Your task to perform on an android device: Open Android settings Image 0: 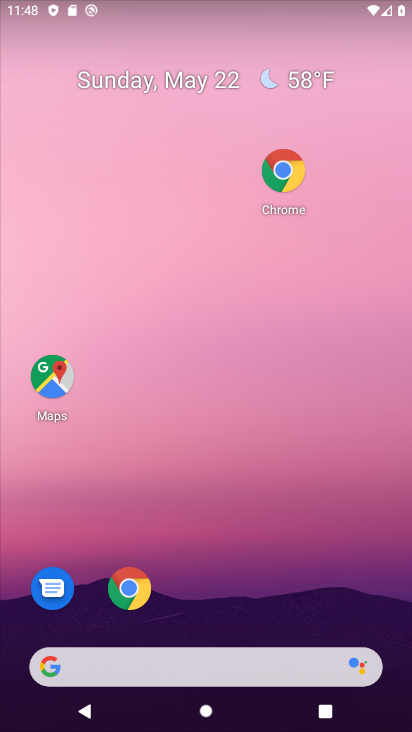
Step 0: press back button
Your task to perform on an android device: Open Android settings Image 1: 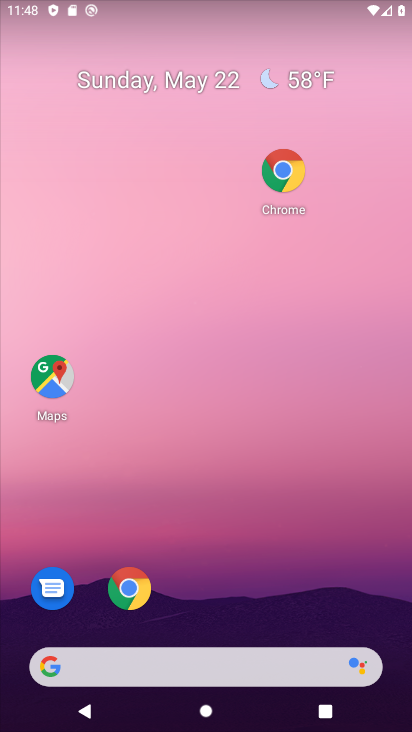
Step 1: press back button
Your task to perform on an android device: Open Android settings Image 2: 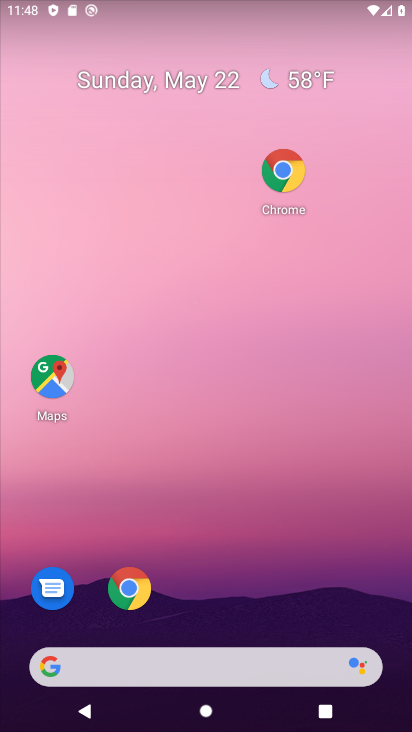
Step 2: press back button
Your task to perform on an android device: Open Android settings Image 3: 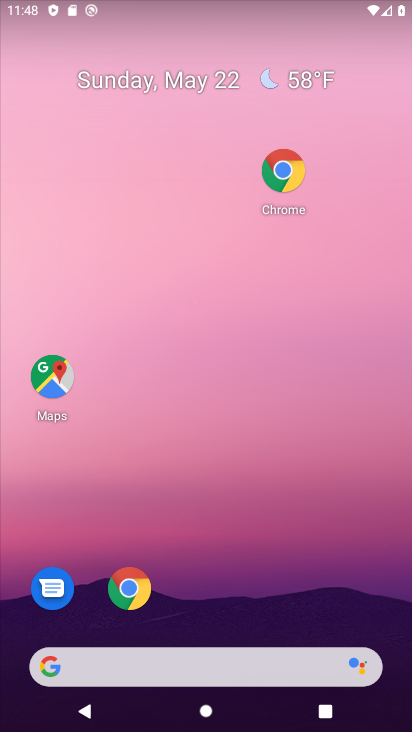
Step 3: press back button
Your task to perform on an android device: Open Android settings Image 4: 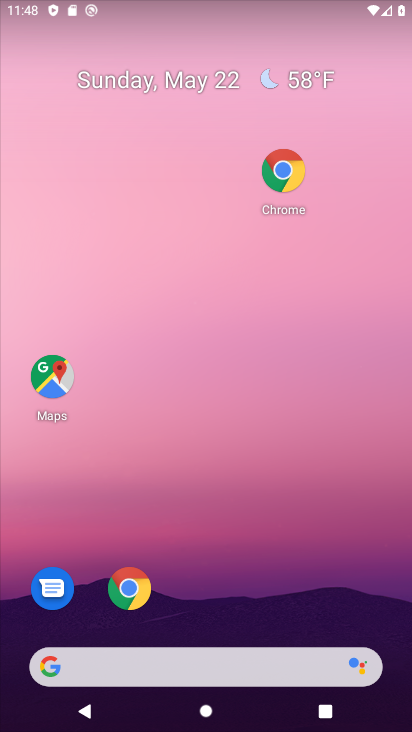
Step 4: drag from (250, 644) to (149, 98)
Your task to perform on an android device: Open Android settings Image 5: 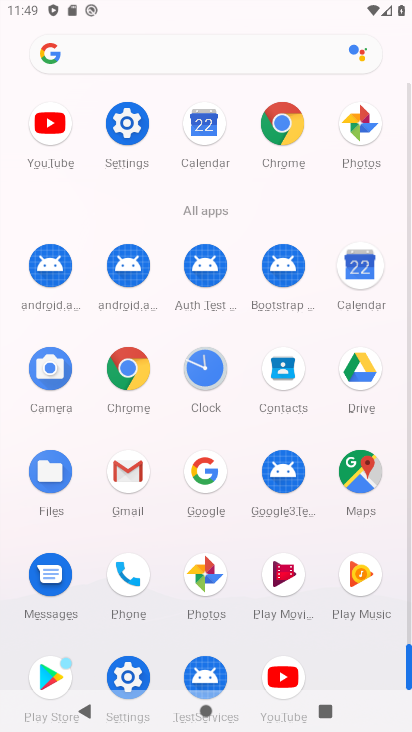
Step 5: click (118, 126)
Your task to perform on an android device: Open Android settings Image 6: 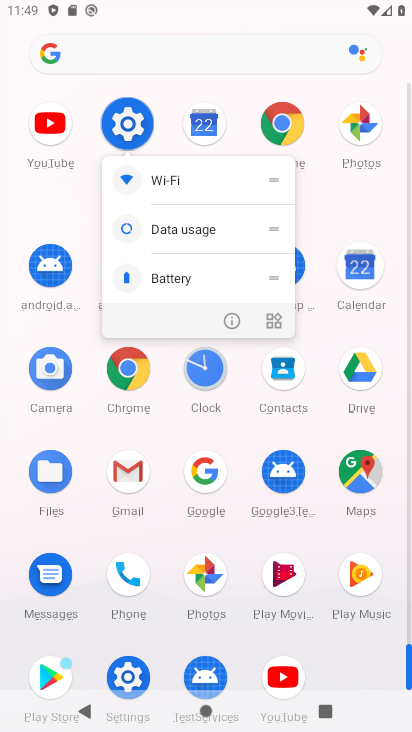
Step 6: click (126, 121)
Your task to perform on an android device: Open Android settings Image 7: 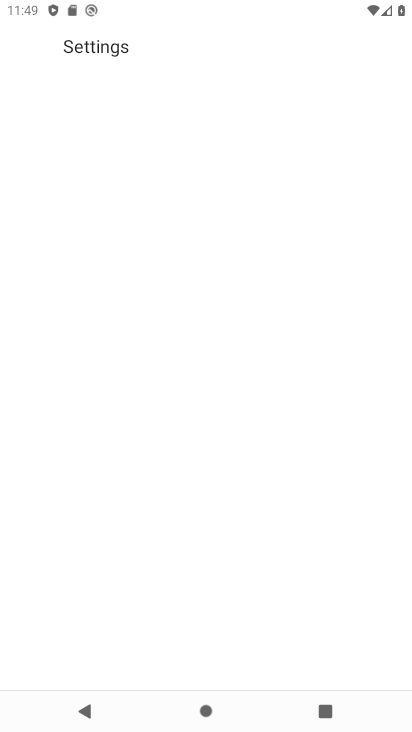
Step 7: click (126, 121)
Your task to perform on an android device: Open Android settings Image 8: 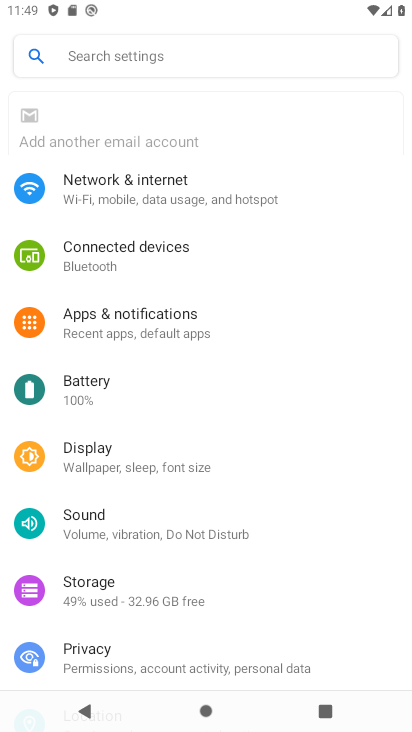
Step 8: click (126, 121)
Your task to perform on an android device: Open Android settings Image 9: 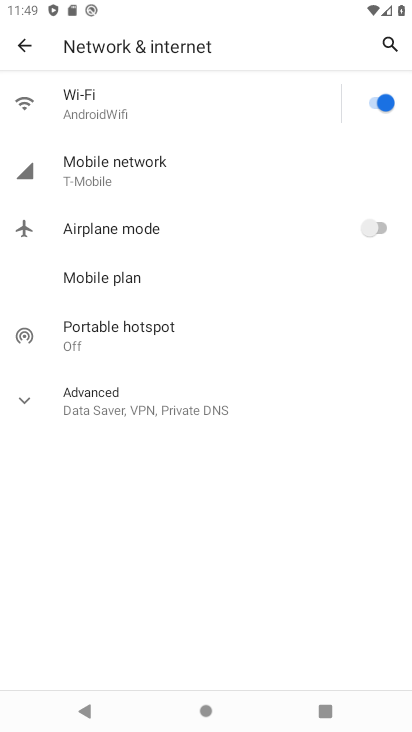
Step 9: click (17, 46)
Your task to perform on an android device: Open Android settings Image 10: 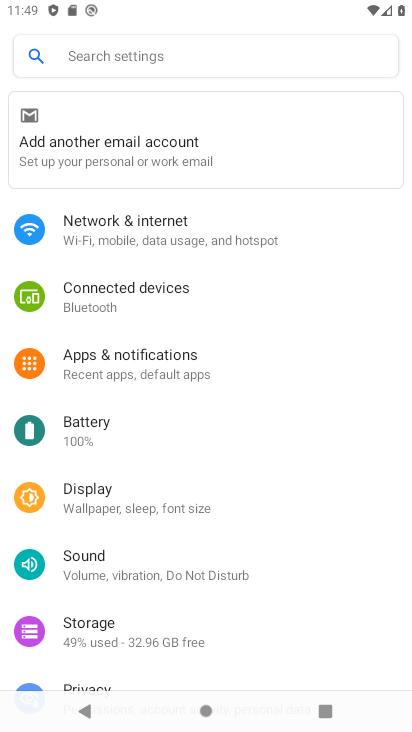
Step 10: drag from (180, 599) to (185, 119)
Your task to perform on an android device: Open Android settings Image 11: 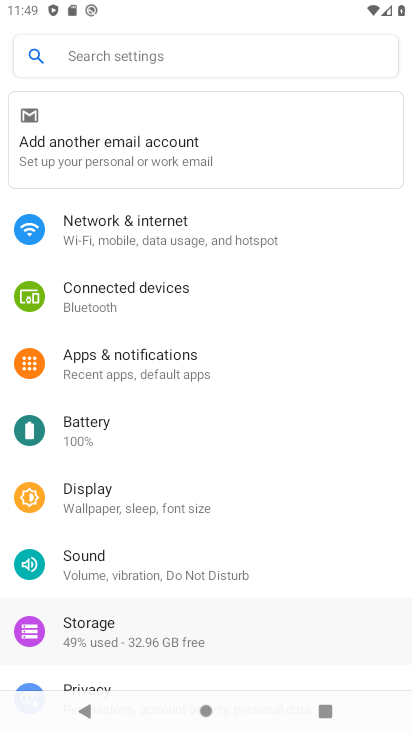
Step 11: drag from (143, 483) to (207, 125)
Your task to perform on an android device: Open Android settings Image 12: 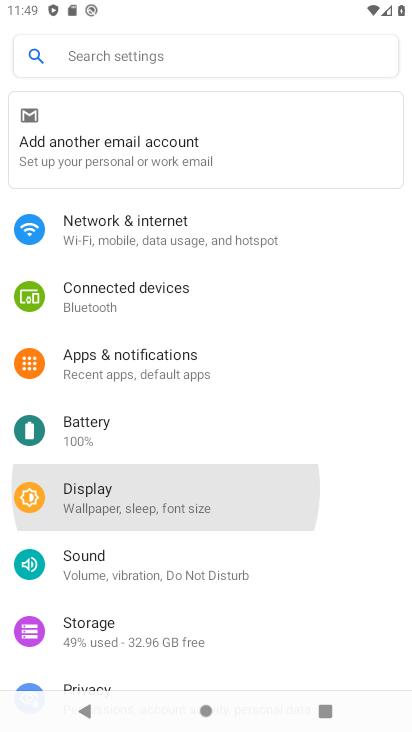
Step 12: drag from (127, 492) to (124, 96)
Your task to perform on an android device: Open Android settings Image 13: 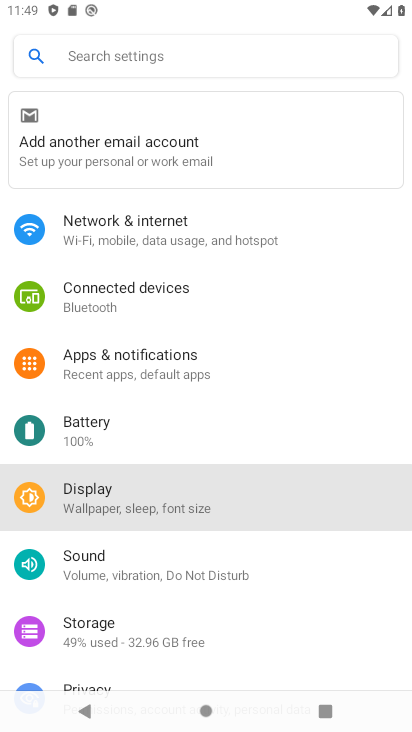
Step 13: drag from (123, 500) to (115, 120)
Your task to perform on an android device: Open Android settings Image 14: 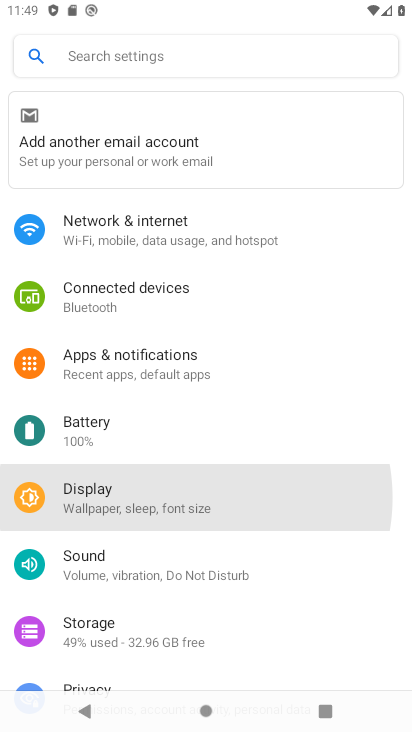
Step 14: click (218, 201)
Your task to perform on an android device: Open Android settings Image 15: 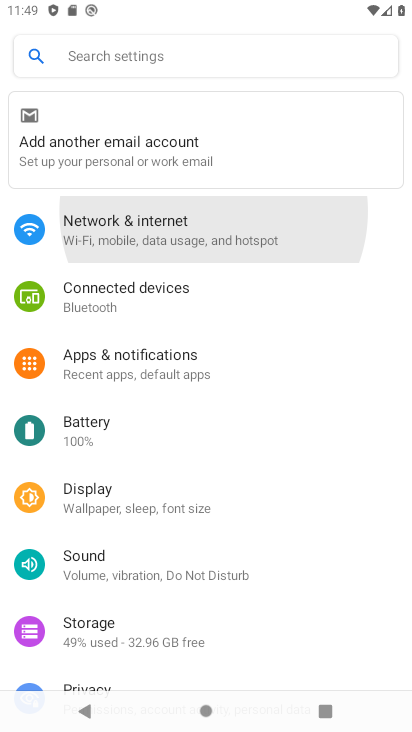
Step 15: drag from (122, 503) to (53, 205)
Your task to perform on an android device: Open Android settings Image 16: 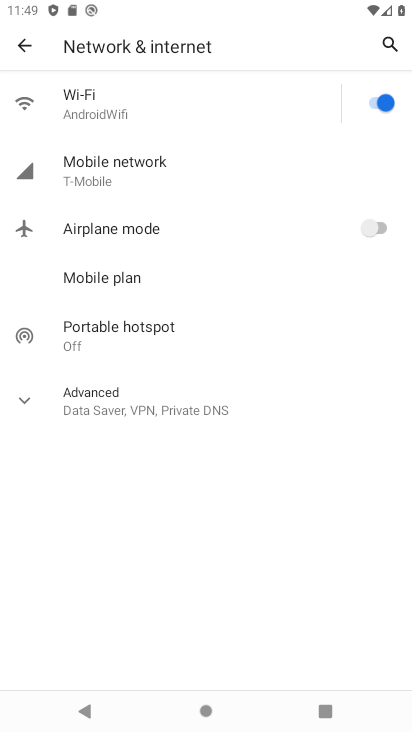
Step 16: click (15, 42)
Your task to perform on an android device: Open Android settings Image 17: 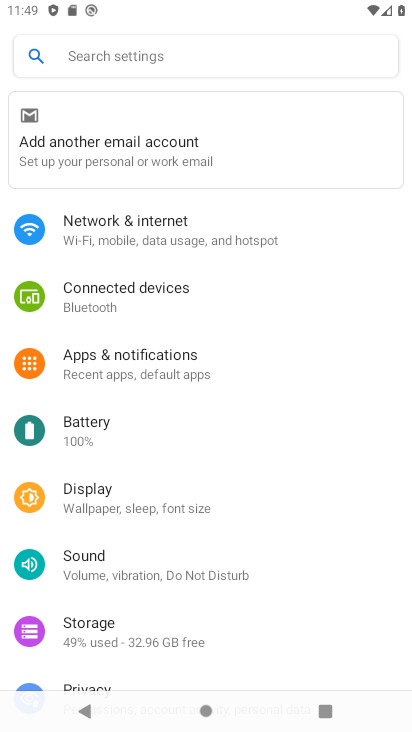
Step 17: drag from (166, 553) to (185, 164)
Your task to perform on an android device: Open Android settings Image 18: 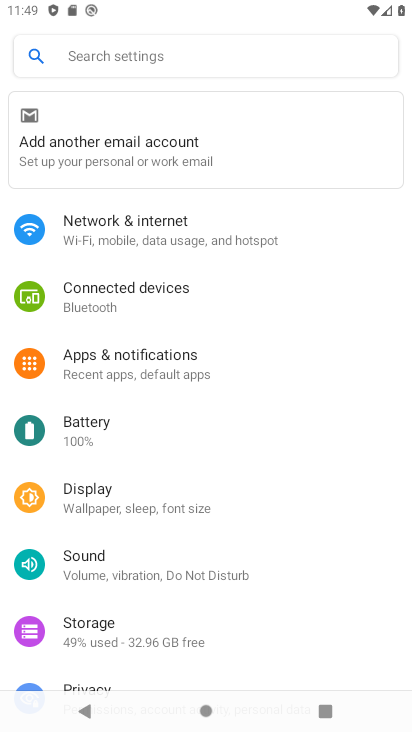
Step 18: drag from (167, 425) to (105, 30)
Your task to perform on an android device: Open Android settings Image 19: 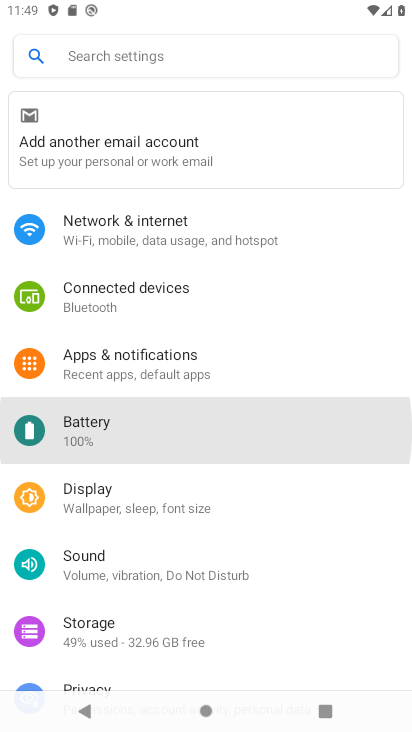
Step 19: drag from (94, 441) to (88, 161)
Your task to perform on an android device: Open Android settings Image 20: 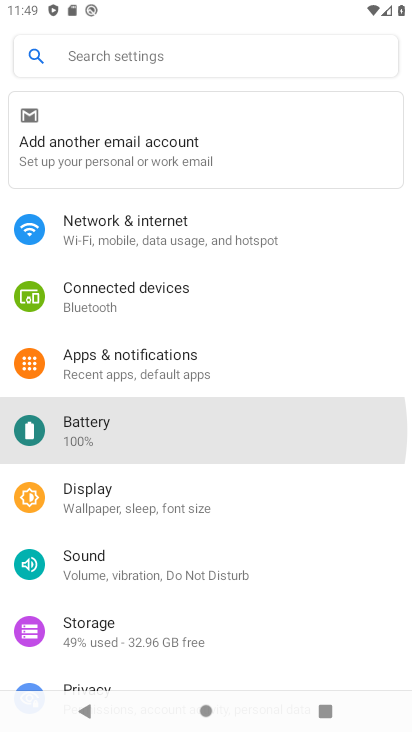
Step 20: drag from (84, 419) to (73, 60)
Your task to perform on an android device: Open Android settings Image 21: 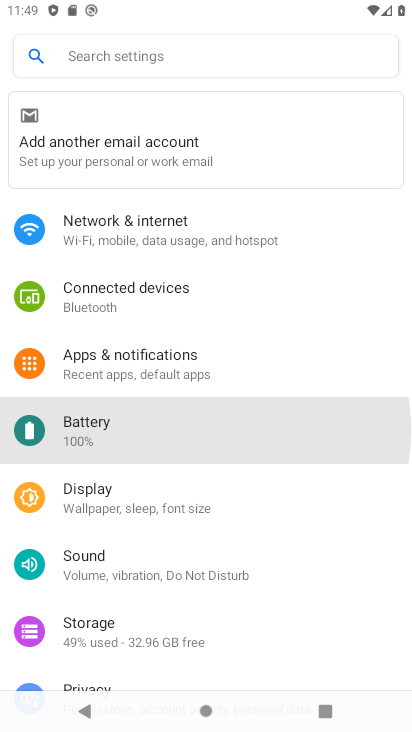
Step 21: drag from (163, 499) to (163, 138)
Your task to perform on an android device: Open Android settings Image 22: 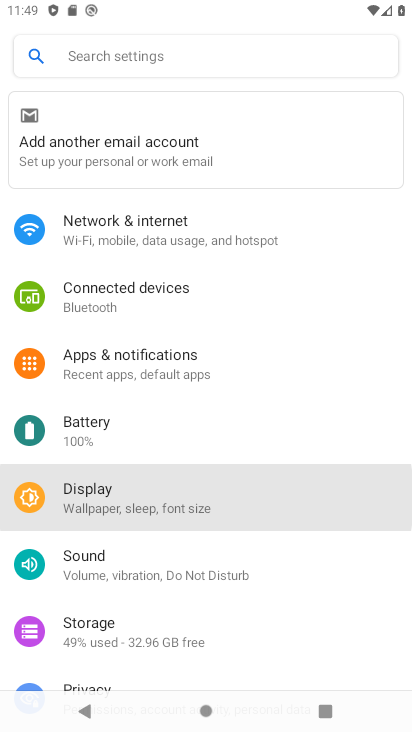
Step 22: drag from (142, 412) to (116, 85)
Your task to perform on an android device: Open Android settings Image 23: 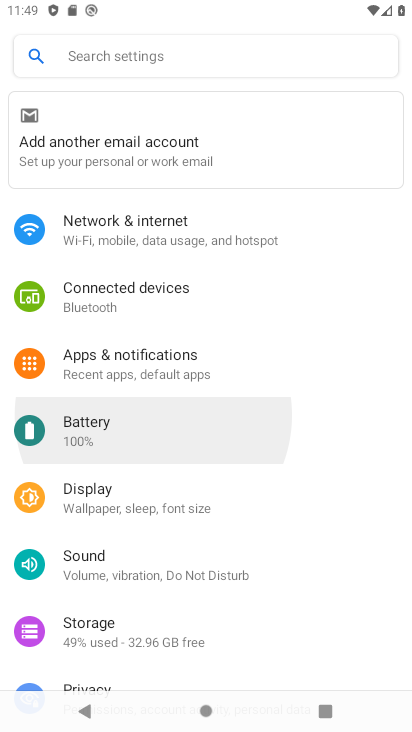
Step 23: drag from (174, 471) to (164, 72)
Your task to perform on an android device: Open Android settings Image 24: 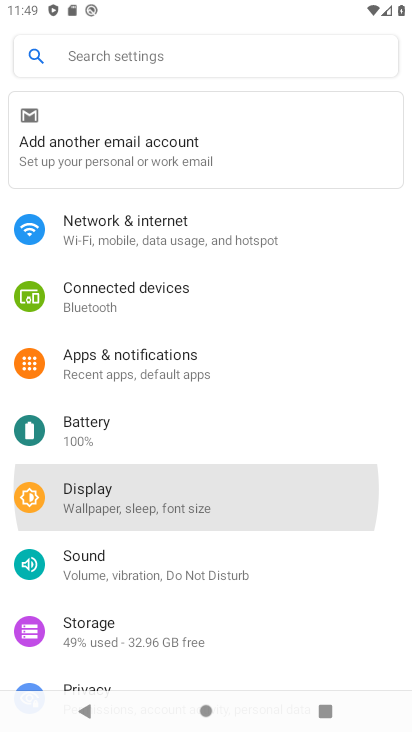
Step 24: drag from (187, 516) to (225, 121)
Your task to perform on an android device: Open Android settings Image 25: 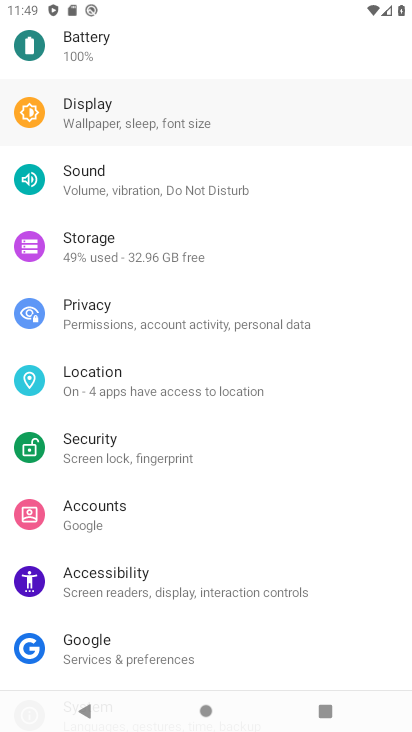
Step 25: drag from (202, 319) to (185, 6)
Your task to perform on an android device: Open Android settings Image 26: 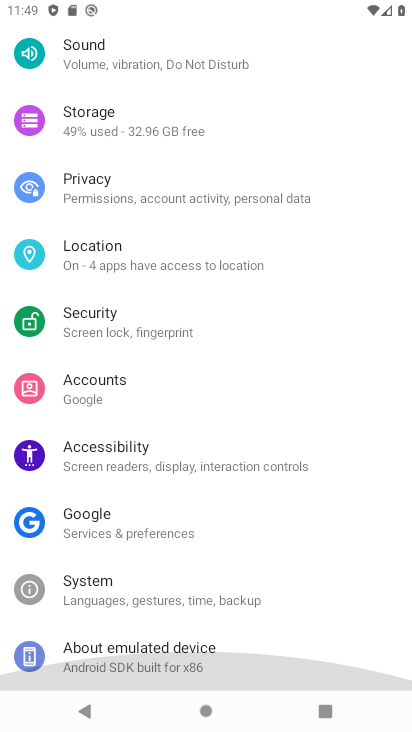
Step 26: drag from (164, 449) to (126, 250)
Your task to perform on an android device: Open Android settings Image 27: 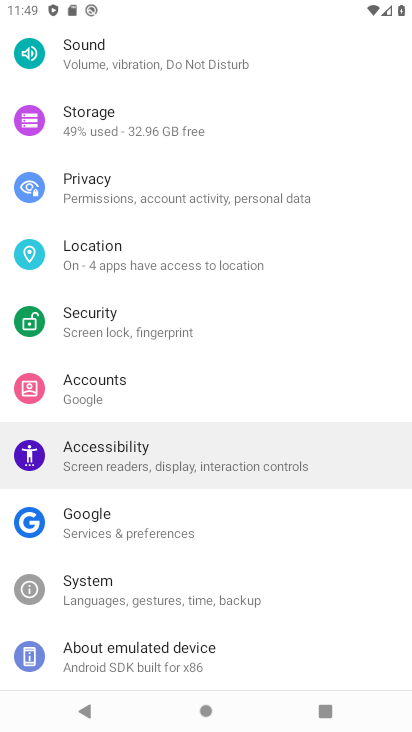
Step 27: drag from (186, 487) to (185, 19)
Your task to perform on an android device: Open Android settings Image 28: 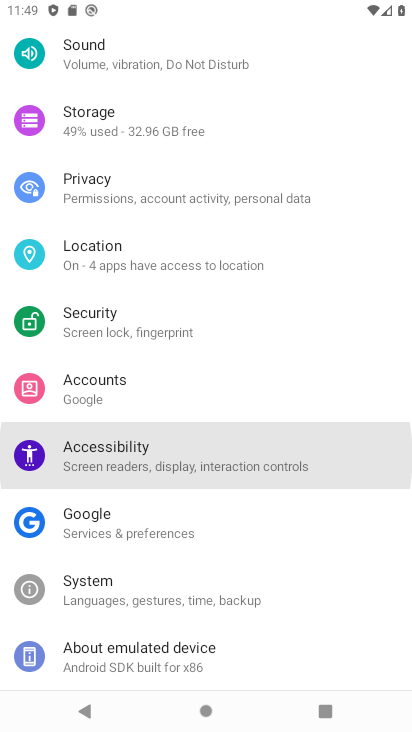
Step 28: drag from (152, 584) to (145, 130)
Your task to perform on an android device: Open Android settings Image 29: 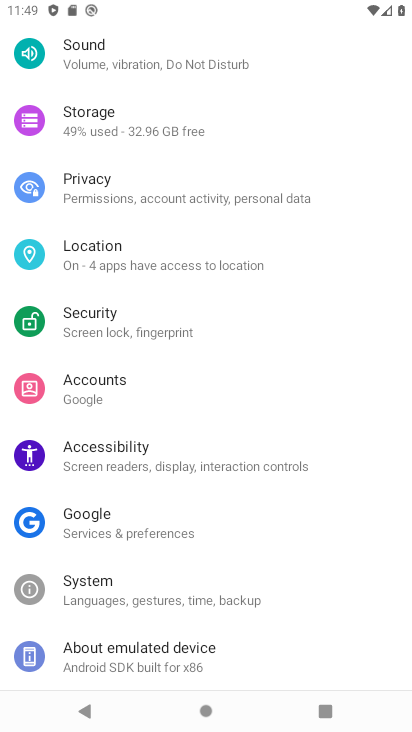
Step 29: click (87, 659)
Your task to perform on an android device: Open Android settings Image 30: 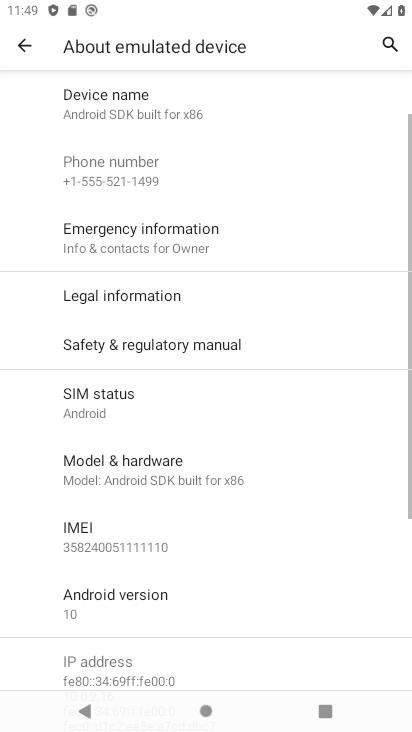
Step 30: task complete